Your task to perform on an android device: Search for Mexican restaurants on Maps Image 0: 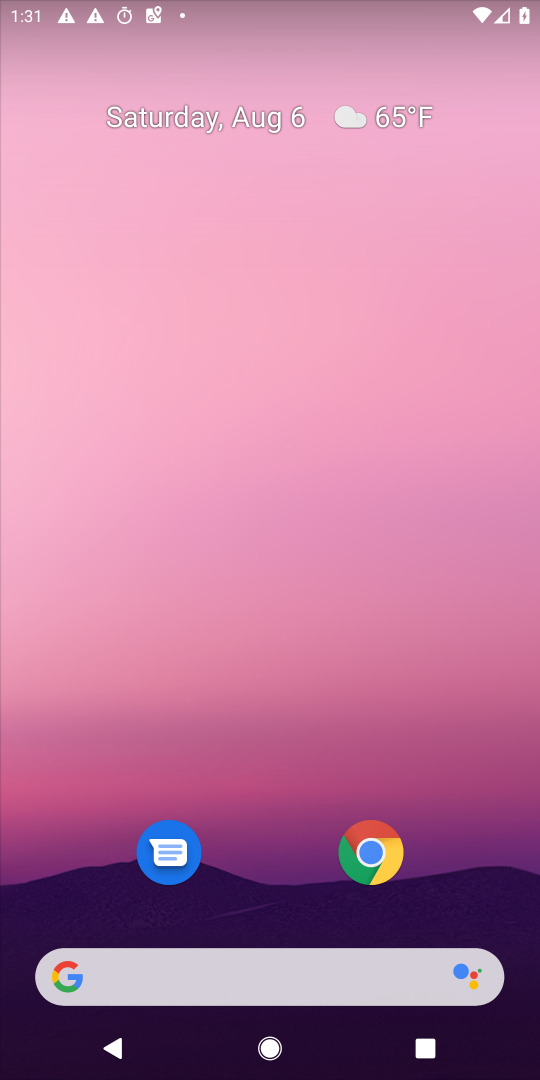
Step 0: press home button
Your task to perform on an android device: Search for Mexican restaurants on Maps Image 1: 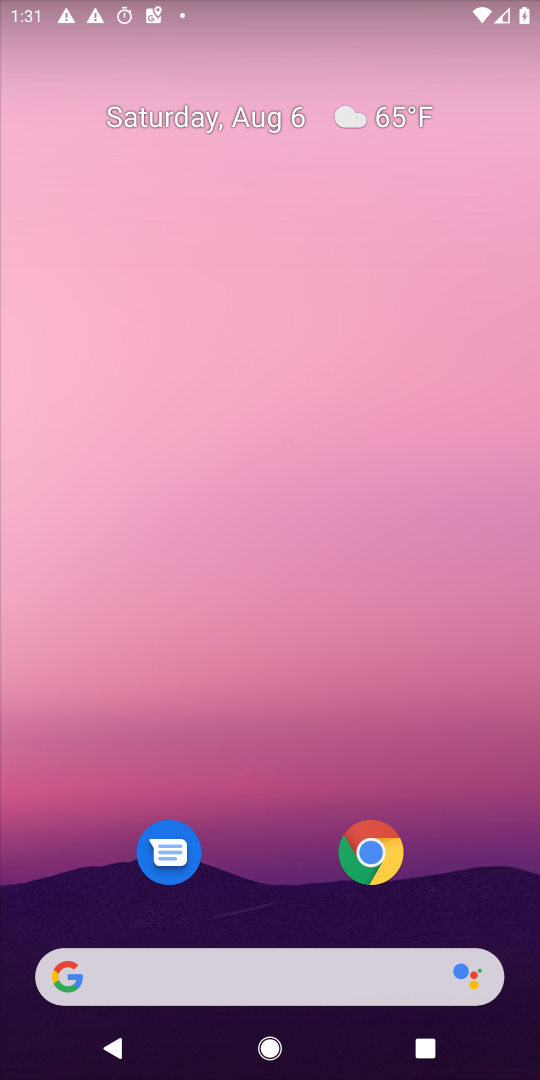
Step 1: drag from (357, 1012) to (451, 388)
Your task to perform on an android device: Search for Mexican restaurants on Maps Image 2: 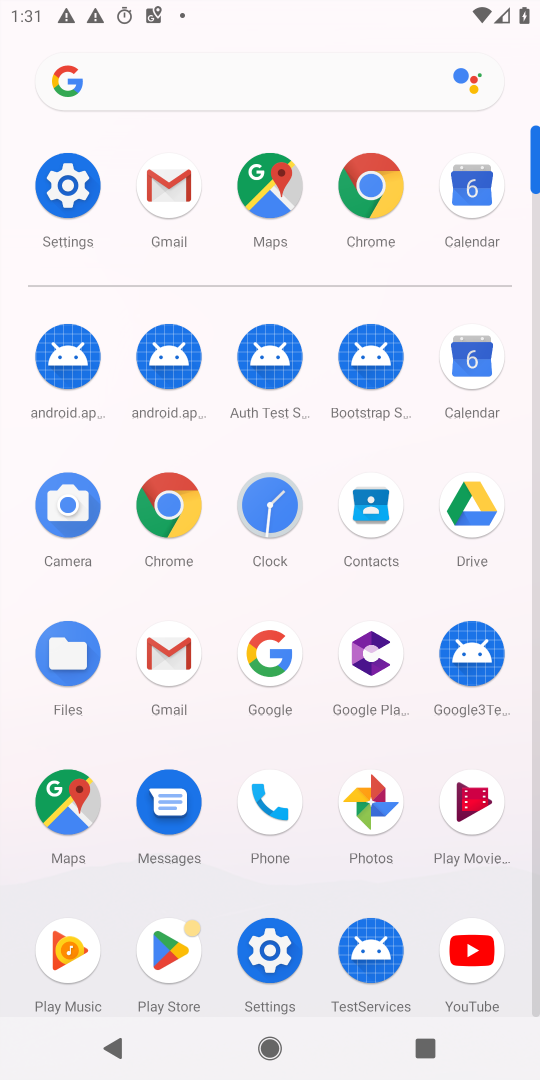
Step 2: click (253, 213)
Your task to perform on an android device: Search for Mexican restaurants on Maps Image 3: 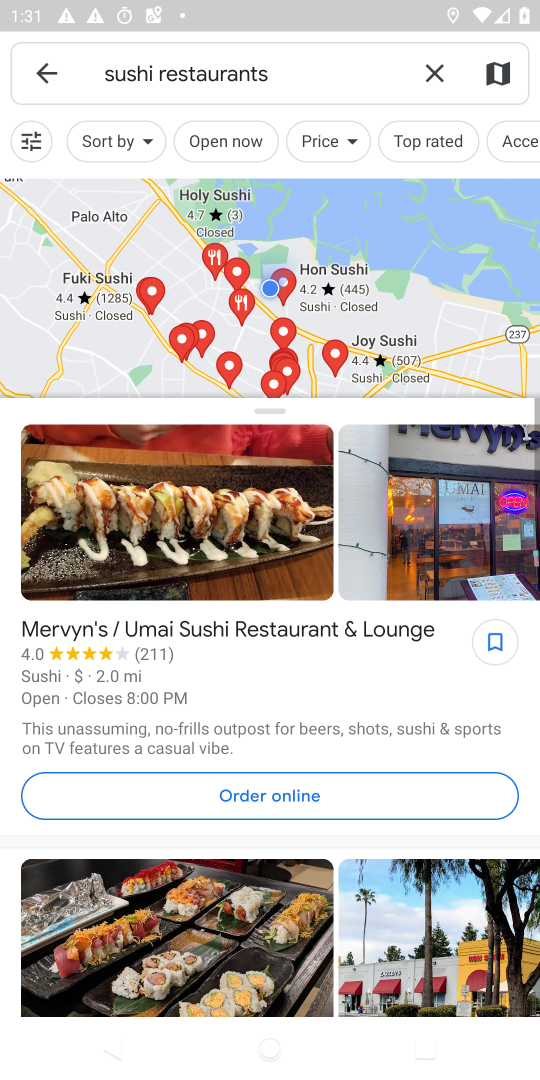
Step 3: click (430, 75)
Your task to perform on an android device: Search for Mexican restaurants on Maps Image 4: 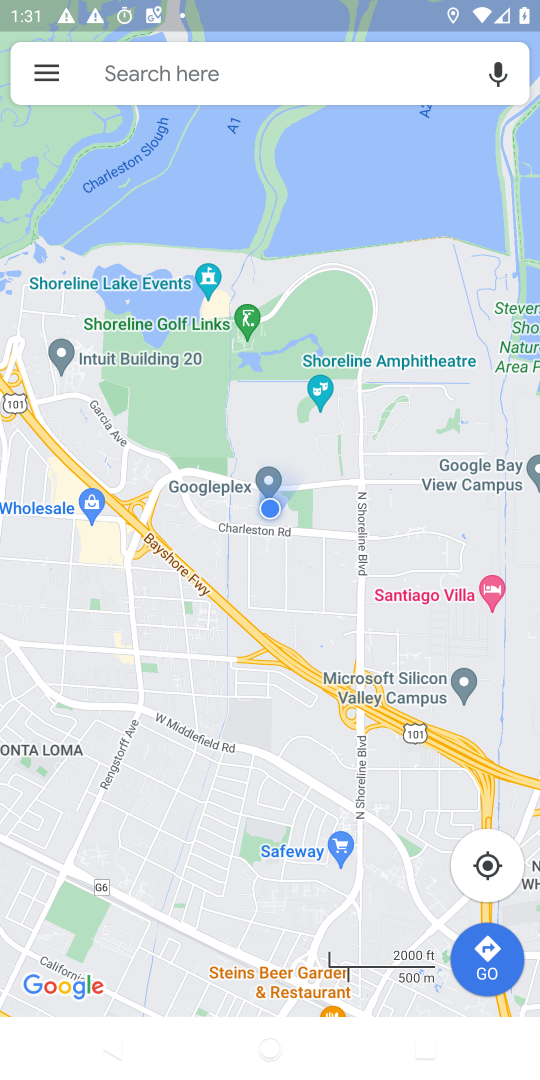
Step 4: click (295, 75)
Your task to perform on an android device: Search for Mexican restaurants on Maps Image 5: 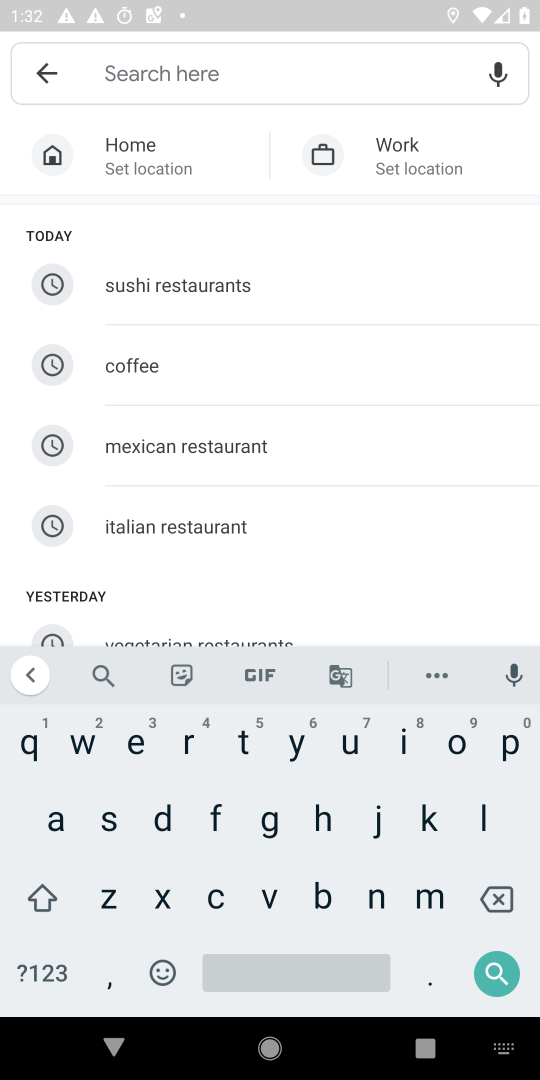
Step 5: click (222, 447)
Your task to perform on an android device: Search for Mexican restaurants on Maps Image 6: 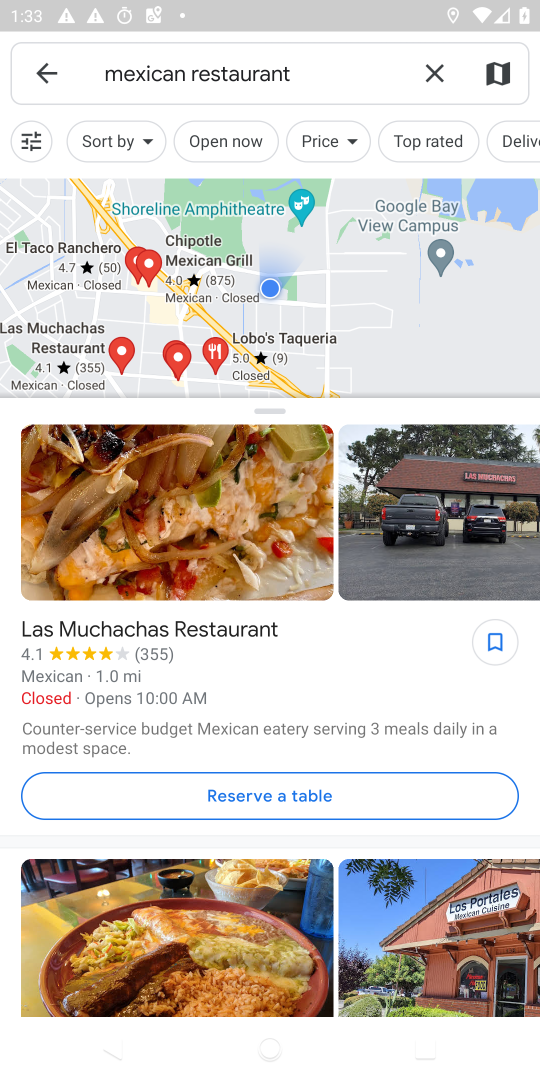
Step 6: task complete